Your task to perform on an android device: What is the news today? Image 0: 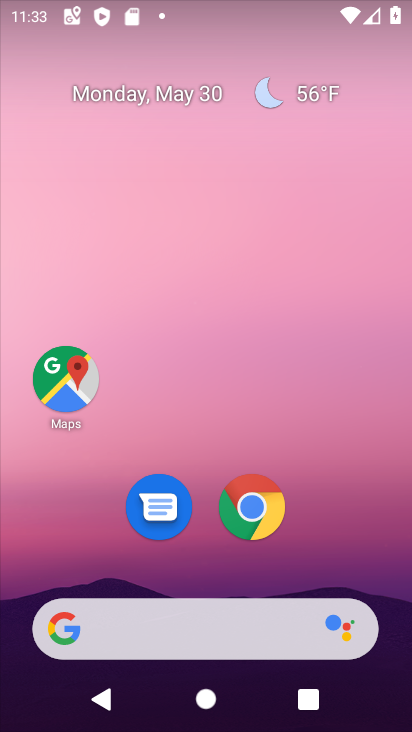
Step 0: click (198, 640)
Your task to perform on an android device: What is the news today? Image 1: 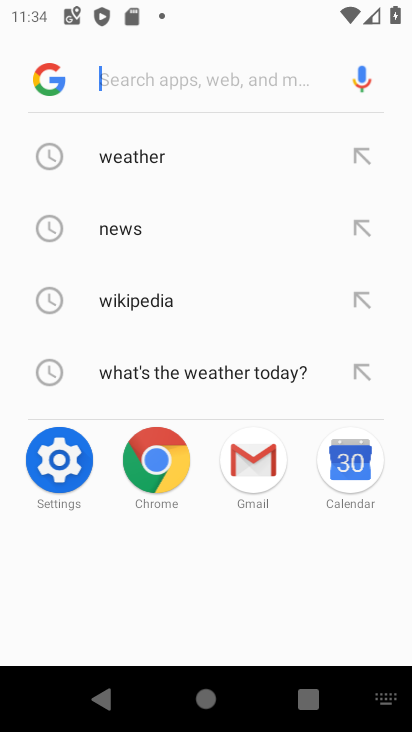
Step 1: type "news today"
Your task to perform on an android device: What is the news today? Image 2: 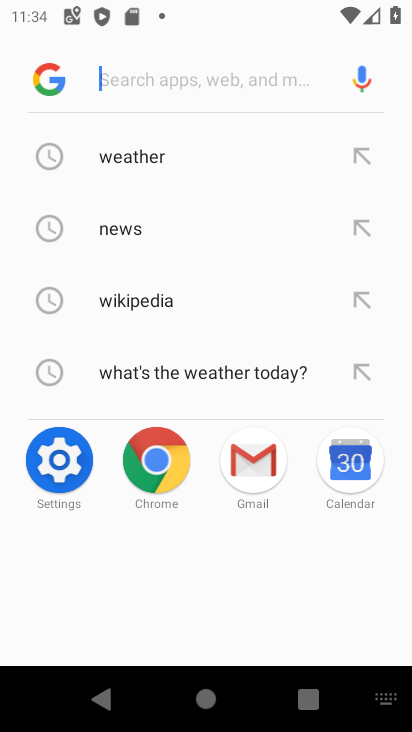
Step 2: click (166, 77)
Your task to perform on an android device: What is the news today? Image 3: 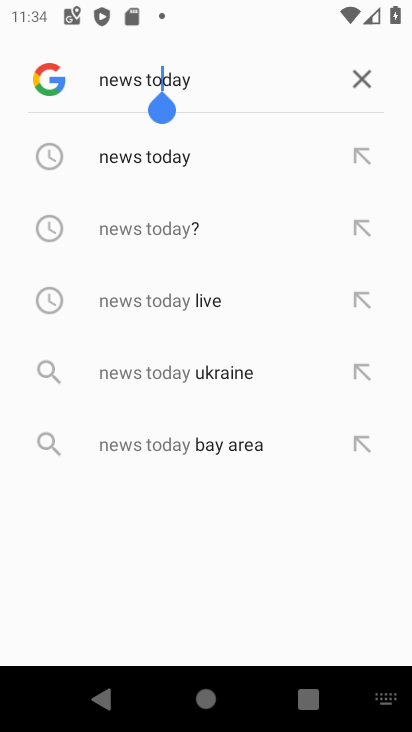
Step 3: click (161, 161)
Your task to perform on an android device: What is the news today? Image 4: 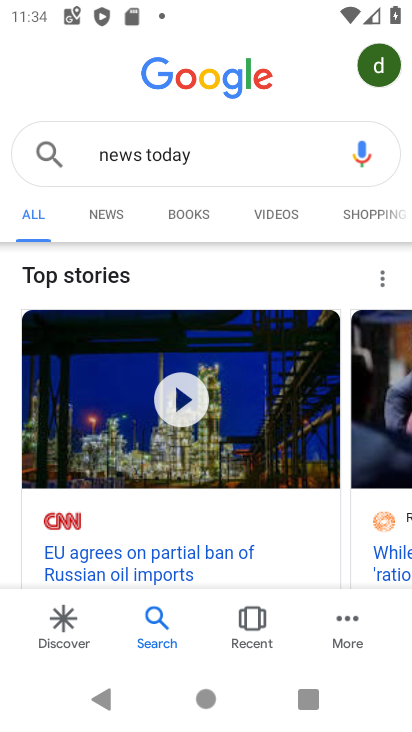
Step 4: task complete